Your task to perform on an android device: open app "Facebook Lite" Image 0: 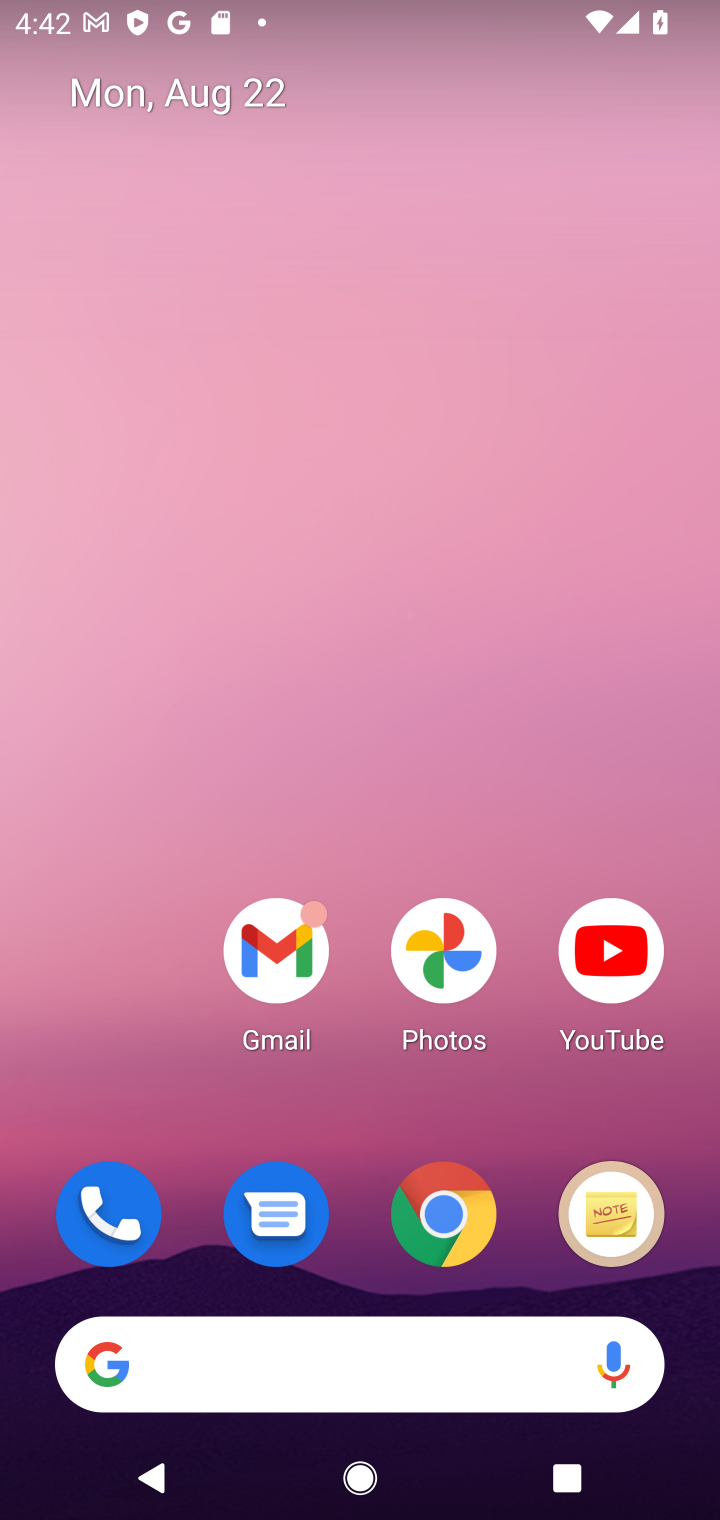
Step 0: drag from (523, 1275) to (492, 84)
Your task to perform on an android device: open app "Facebook Lite" Image 1: 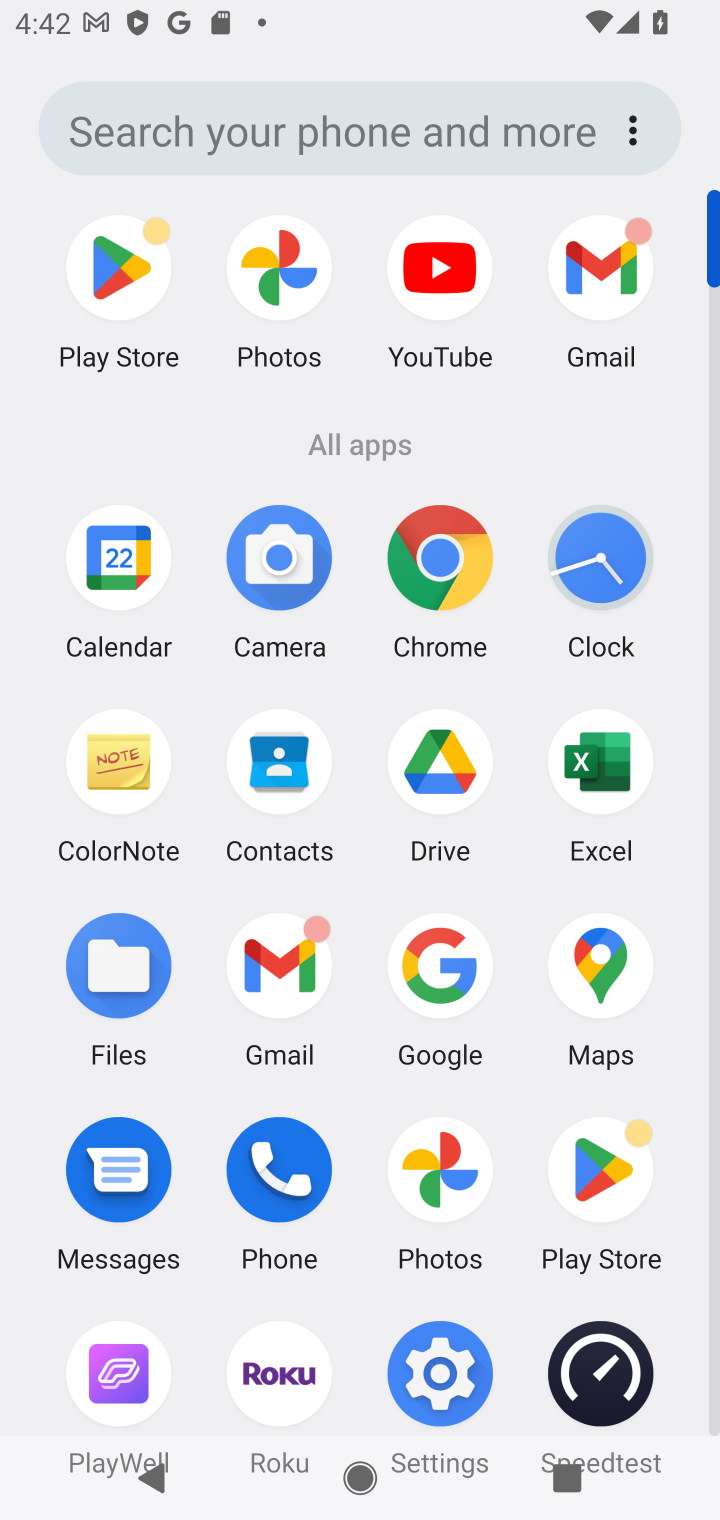
Step 1: click (603, 1176)
Your task to perform on an android device: open app "Facebook Lite" Image 2: 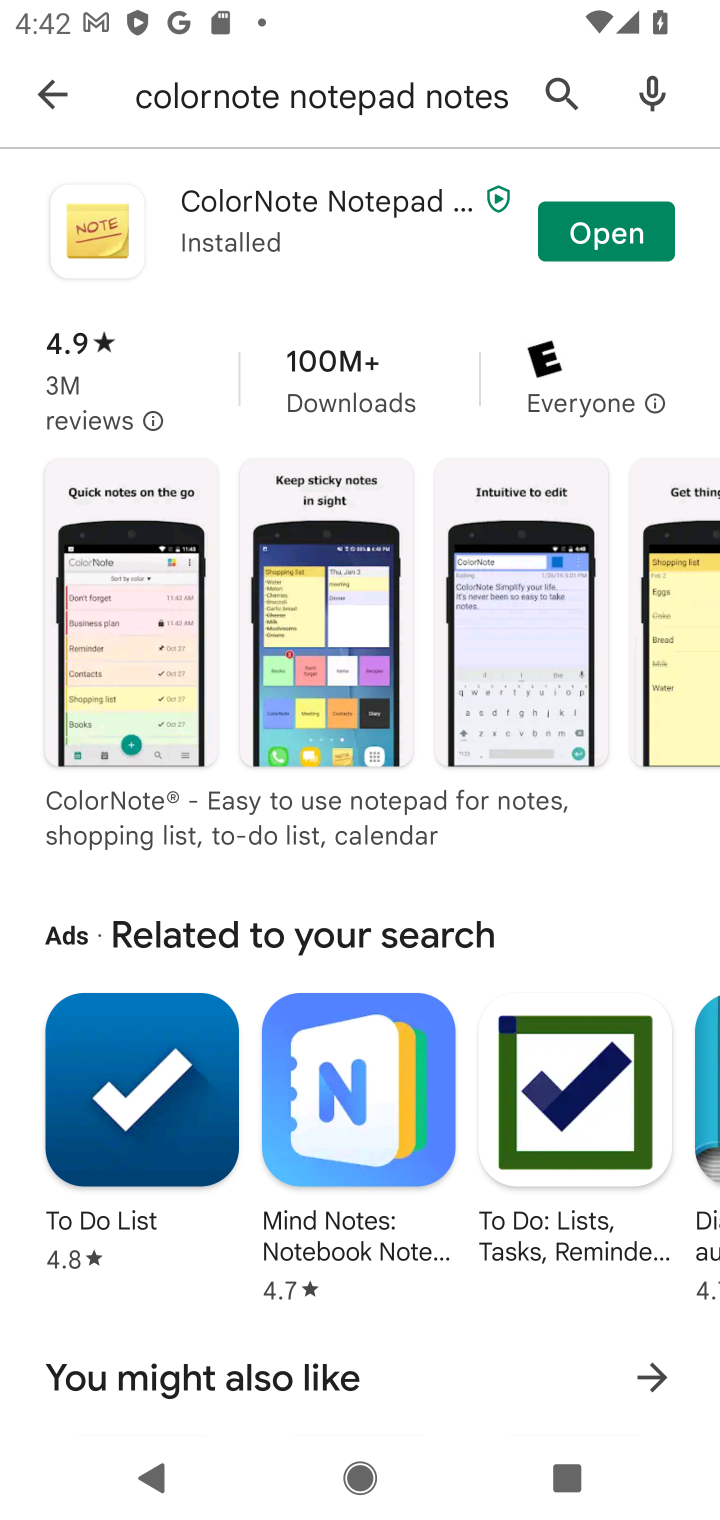
Step 2: click (559, 95)
Your task to perform on an android device: open app "Facebook Lite" Image 3: 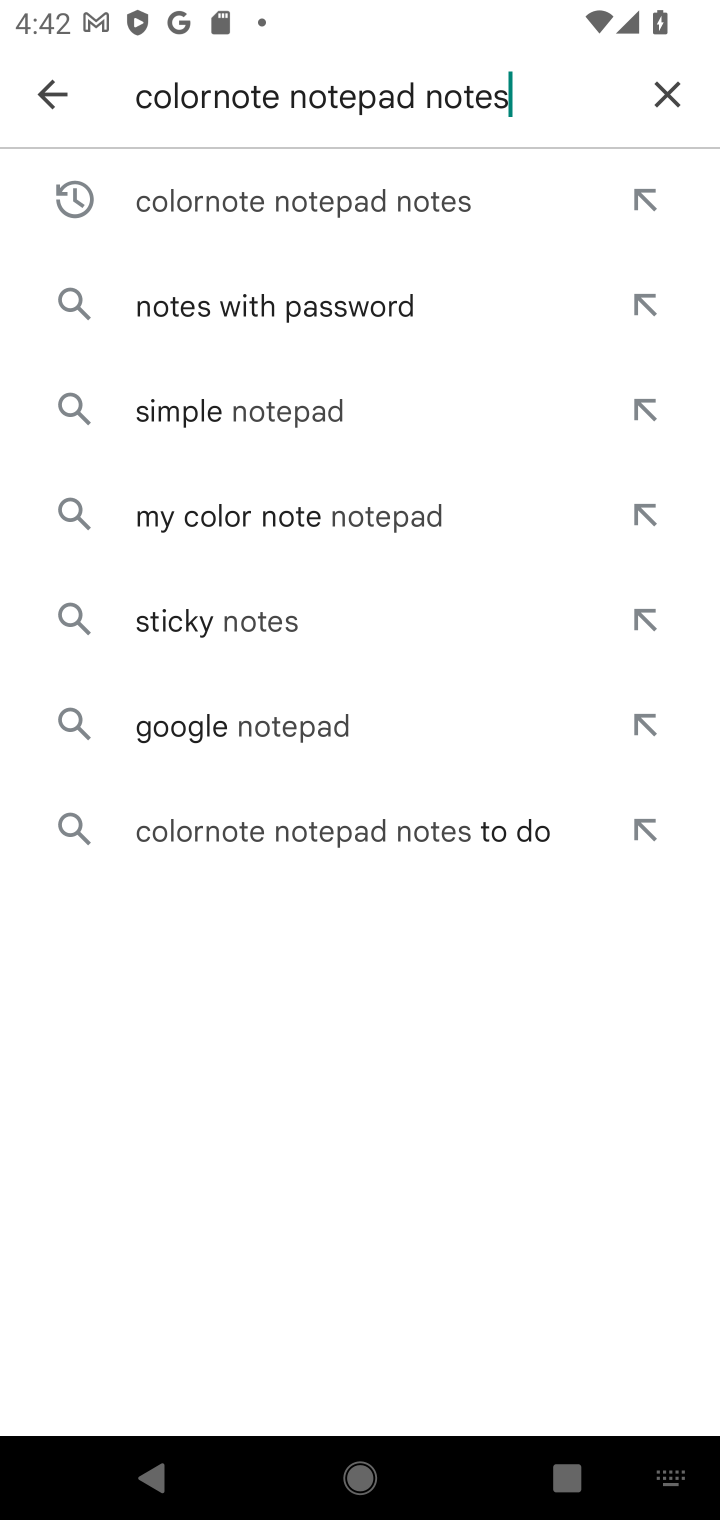
Step 3: click (666, 94)
Your task to perform on an android device: open app "Facebook Lite" Image 4: 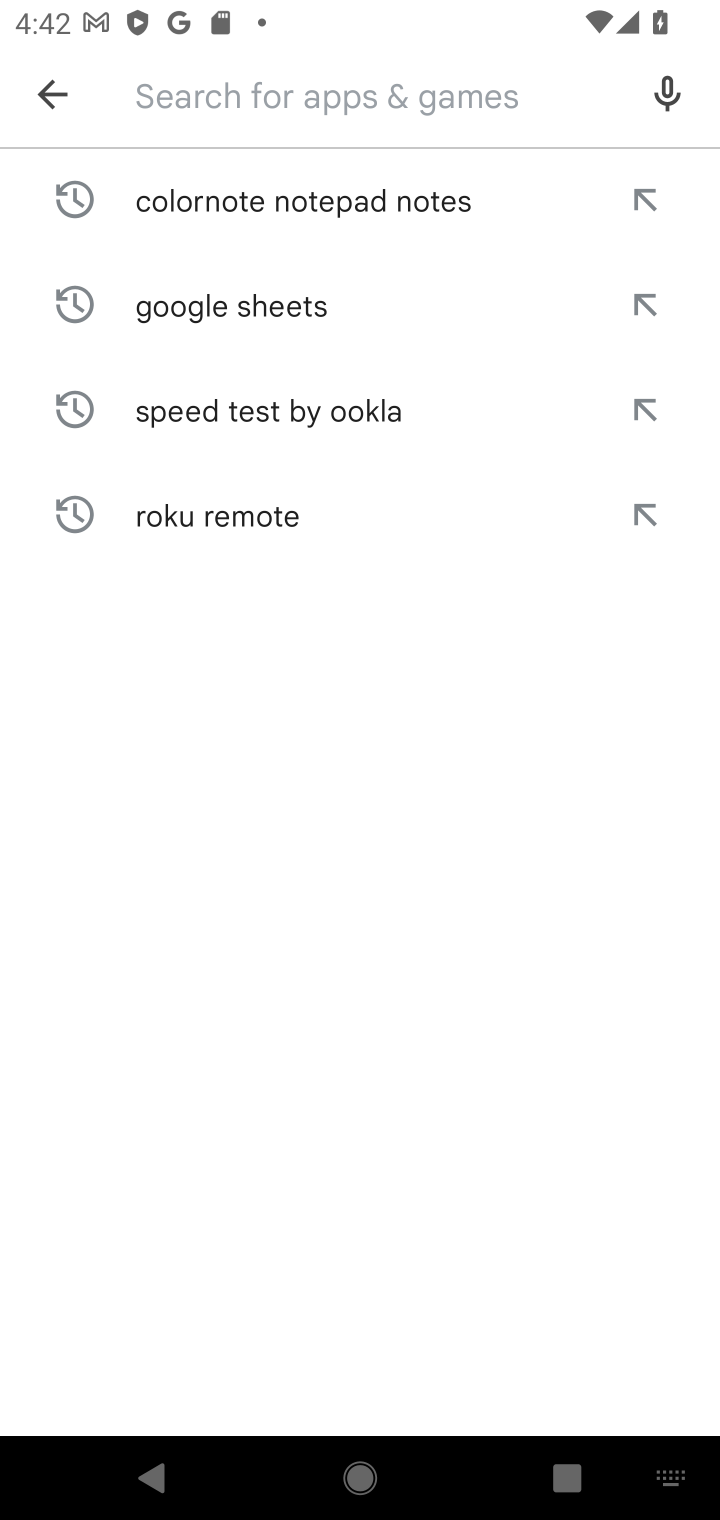
Step 4: type "facebook Lite"
Your task to perform on an android device: open app "Facebook Lite" Image 5: 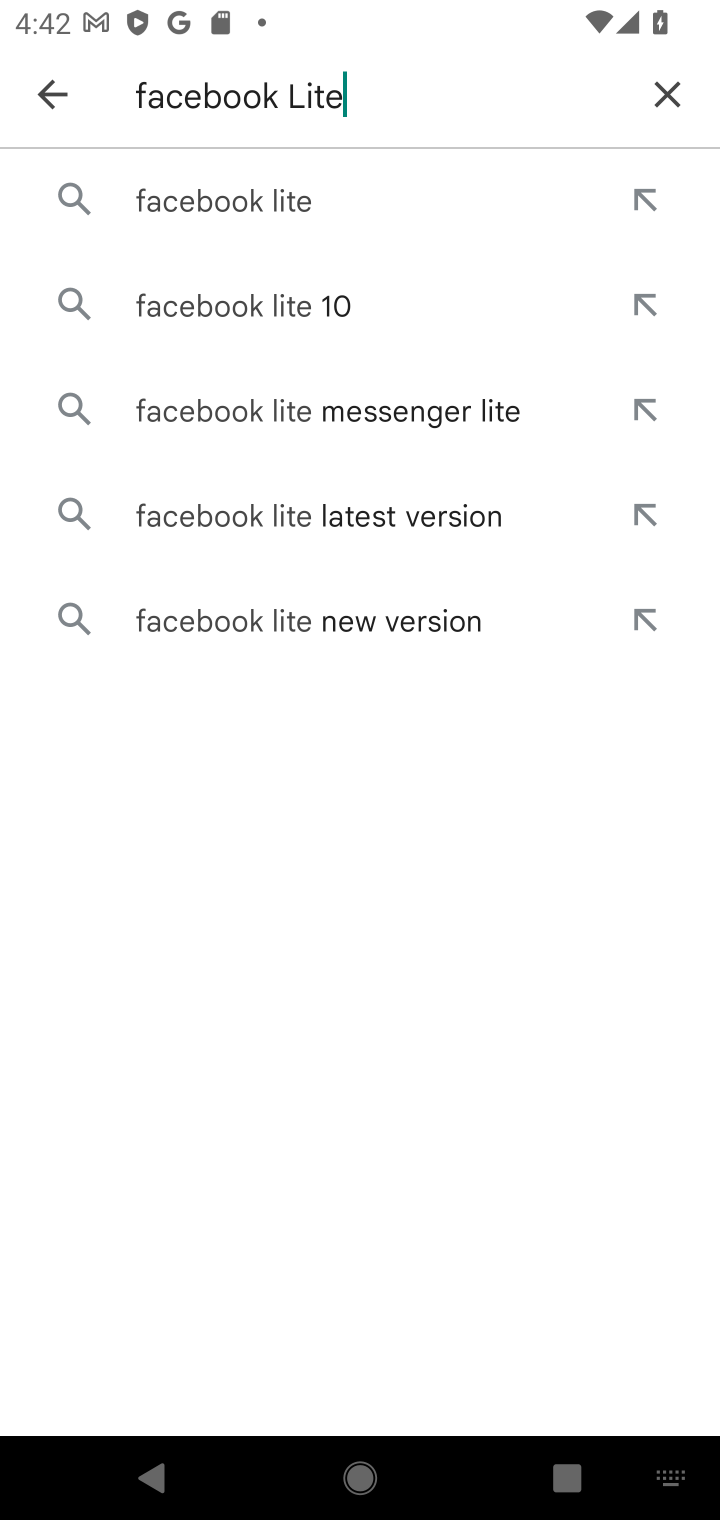
Step 5: click (184, 198)
Your task to perform on an android device: open app "Facebook Lite" Image 6: 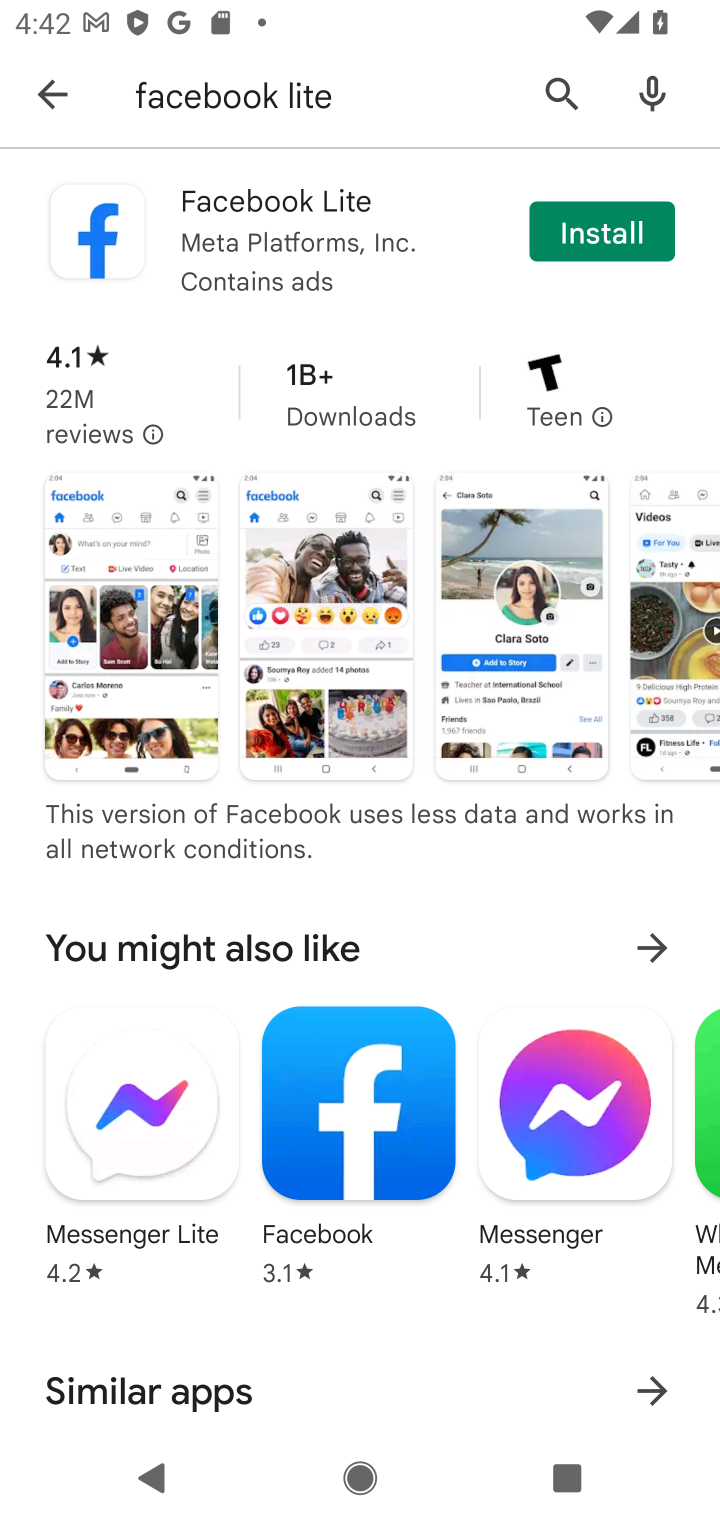
Step 6: task complete